Your task to perform on an android device: turn on improve location accuracy Image 0: 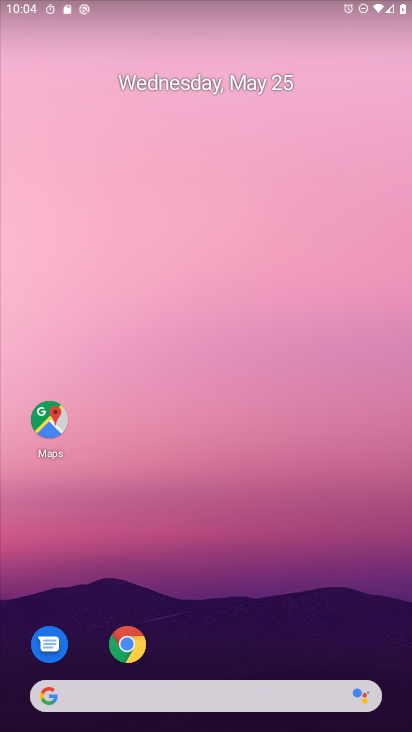
Step 0: drag from (360, 605) to (316, 164)
Your task to perform on an android device: turn on improve location accuracy Image 1: 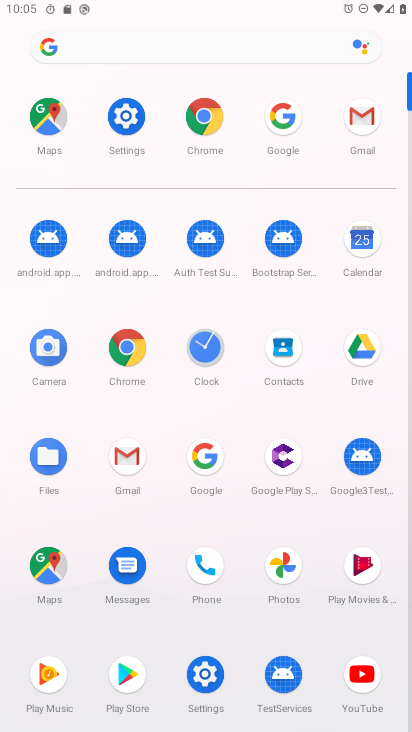
Step 1: click (125, 114)
Your task to perform on an android device: turn on improve location accuracy Image 2: 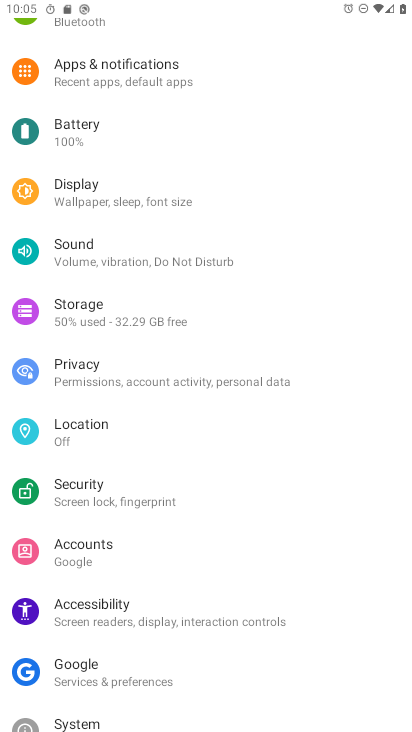
Step 2: click (81, 424)
Your task to perform on an android device: turn on improve location accuracy Image 3: 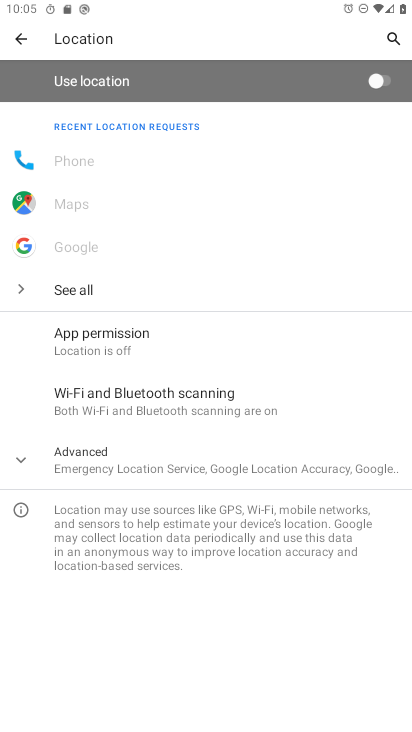
Step 3: click (116, 456)
Your task to perform on an android device: turn on improve location accuracy Image 4: 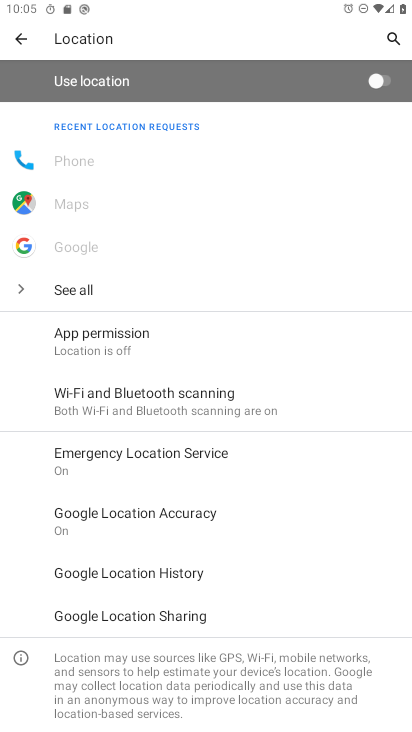
Step 4: click (147, 522)
Your task to perform on an android device: turn on improve location accuracy Image 5: 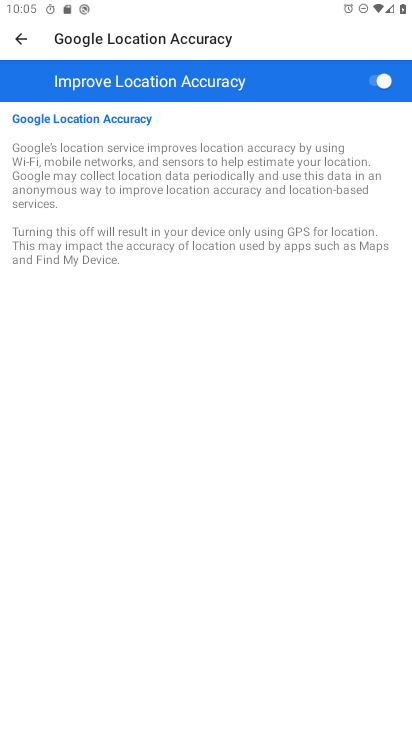
Step 5: task complete